Your task to perform on an android device: Open Google Chrome and open the bookmarks view Image 0: 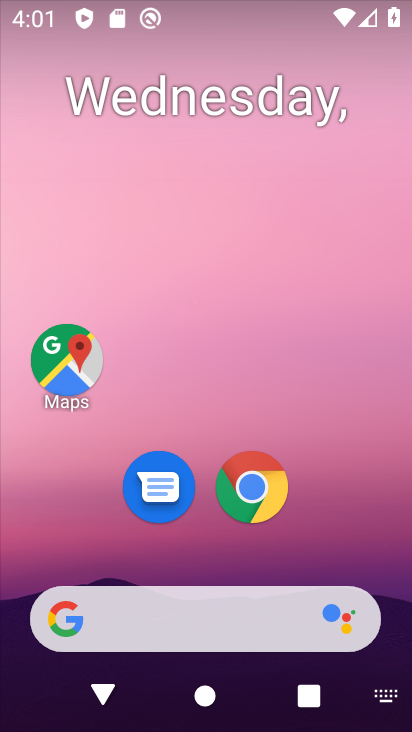
Step 0: click (255, 481)
Your task to perform on an android device: Open Google Chrome and open the bookmarks view Image 1: 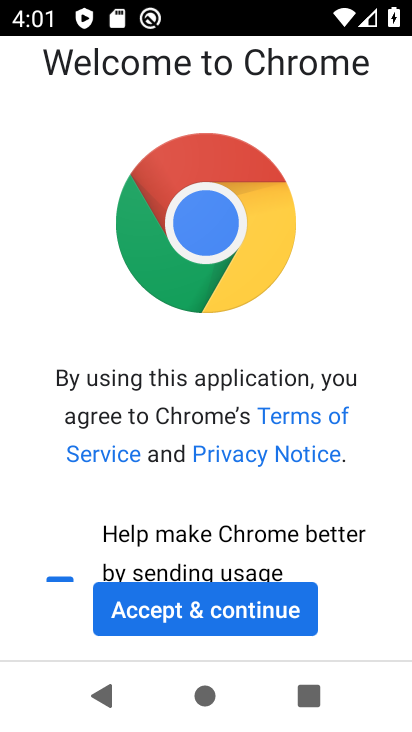
Step 1: click (195, 604)
Your task to perform on an android device: Open Google Chrome and open the bookmarks view Image 2: 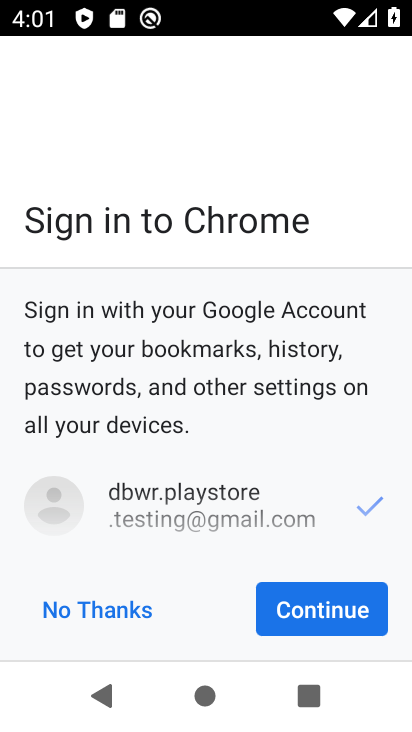
Step 2: click (344, 609)
Your task to perform on an android device: Open Google Chrome and open the bookmarks view Image 3: 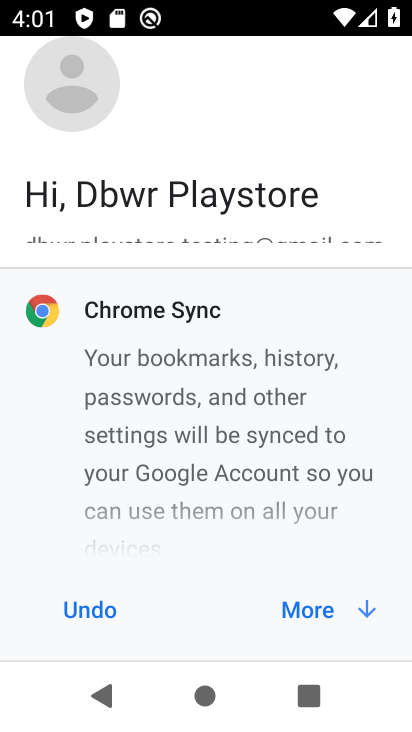
Step 3: click (333, 609)
Your task to perform on an android device: Open Google Chrome and open the bookmarks view Image 4: 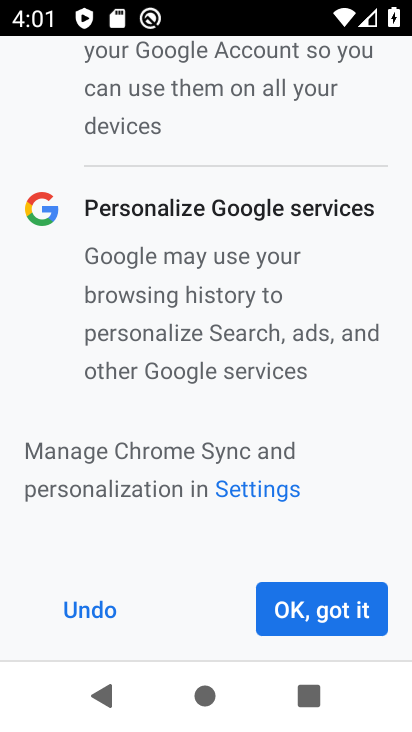
Step 4: click (333, 609)
Your task to perform on an android device: Open Google Chrome and open the bookmarks view Image 5: 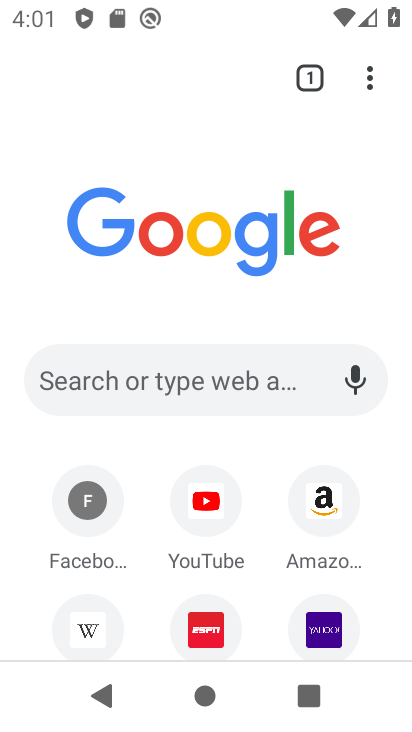
Step 5: click (368, 72)
Your task to perform on an android device: Open Google Chrome and open the bookmarks view Image 6: 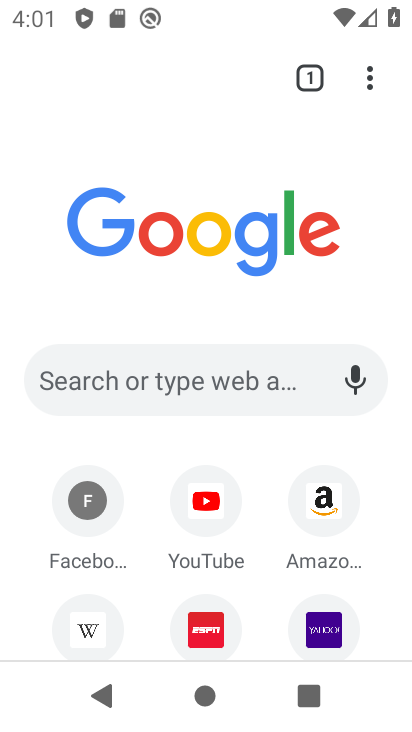
Step 6: click (376, 69)
Your task to perform on an android device: Open Google Chrome and open the bookmarks view Image 7: 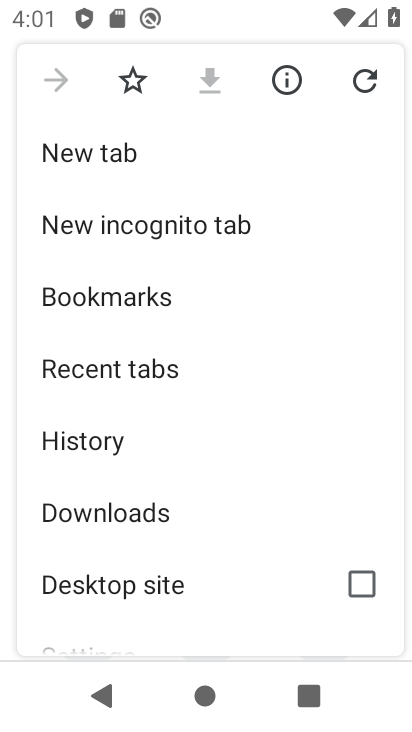
Step 7: click (185, 293)
Your task to perform on an android device: Open Google Chrome and open the bookmarks view Image 8: 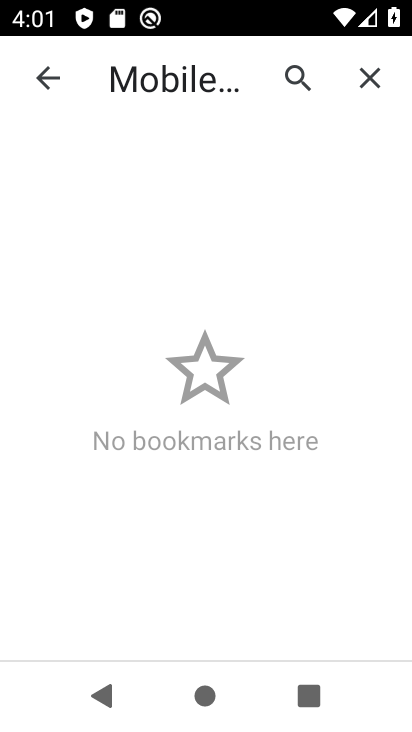
Step 8: task complete